Your task to perform on an android device: Search for "usb-c to usb-a" on costco.com, select the first entry, and add it to the cart. Image 0: 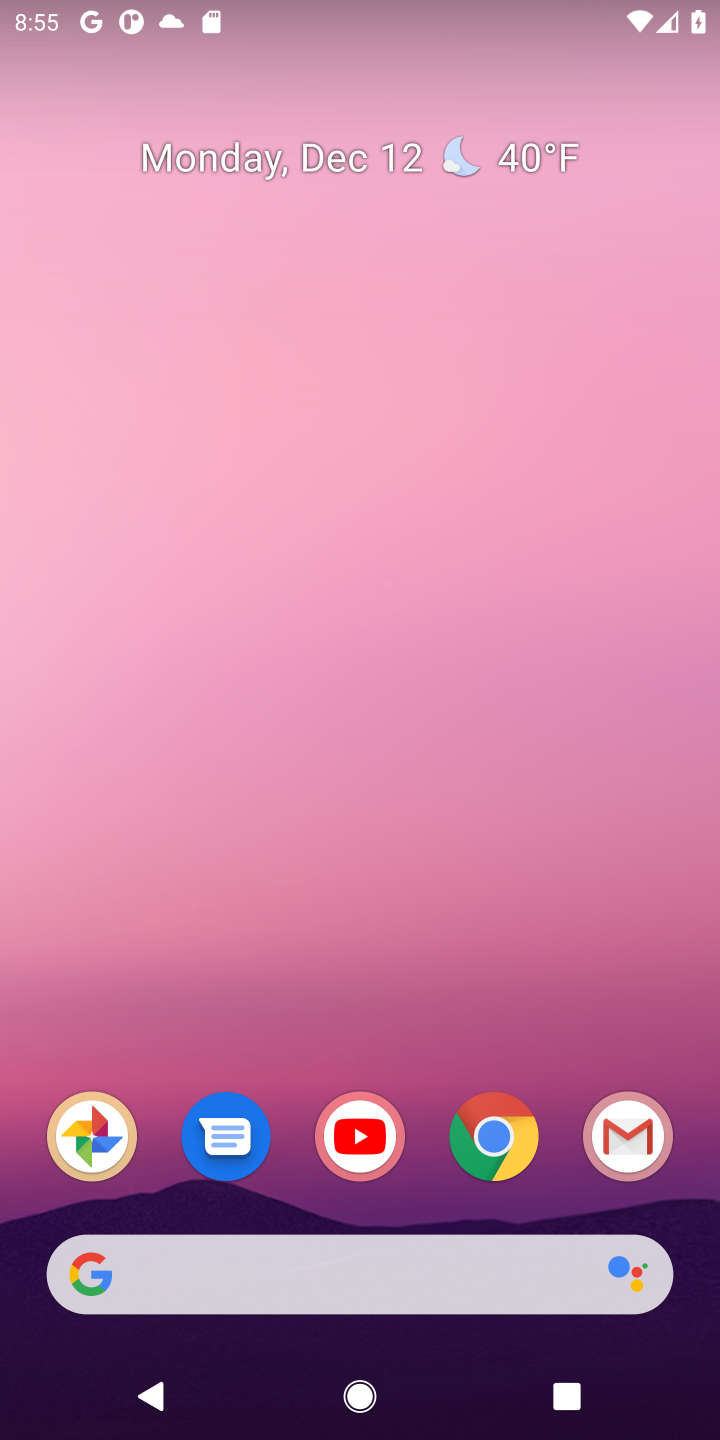
Step 0: click (494, 1147)
Your task to perform on an android device: Search for "usb-c to usb-a" on costco.com, select the first entry, and add it to the cart. Image 1: 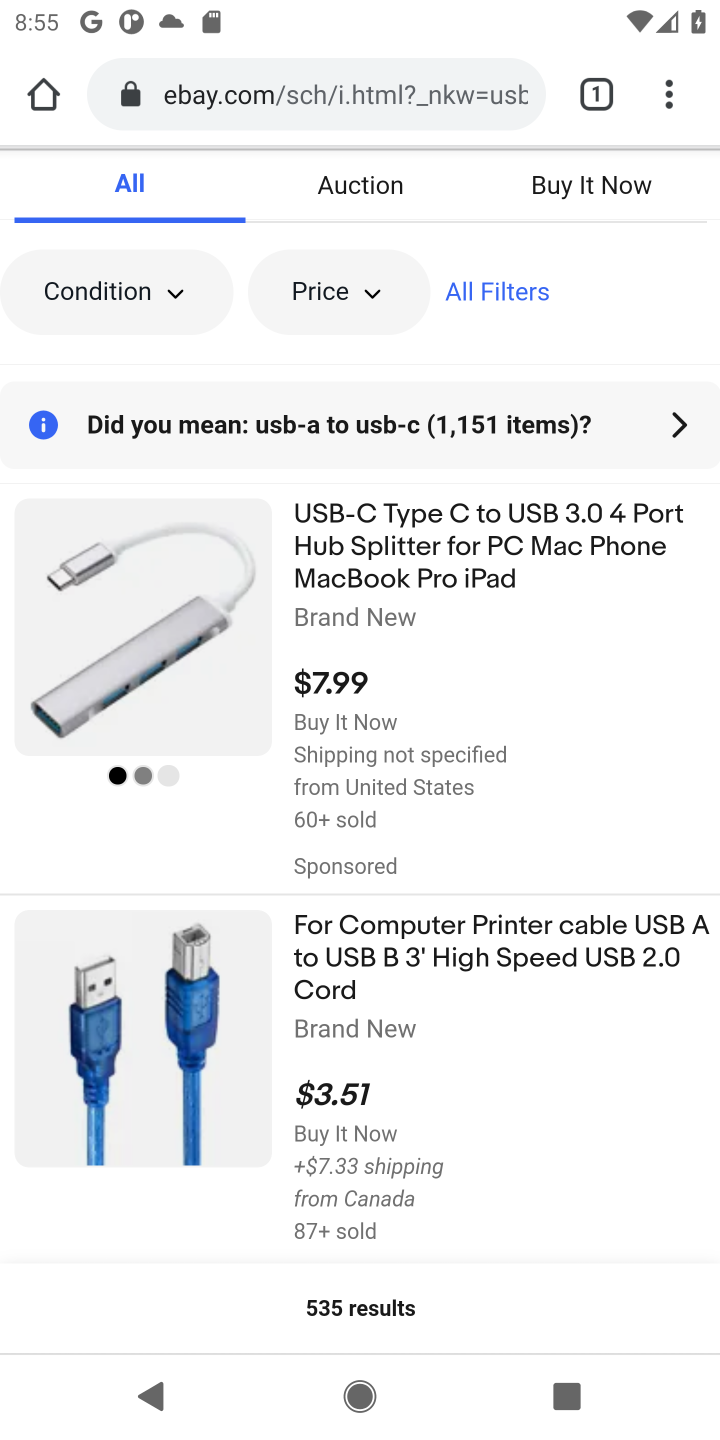
Step 1: click (307, 101)
Your task to perform on an android device: Search for "usb-c to usb-a" on costco.com, select the first entry, and add it to the cart. Image 2: 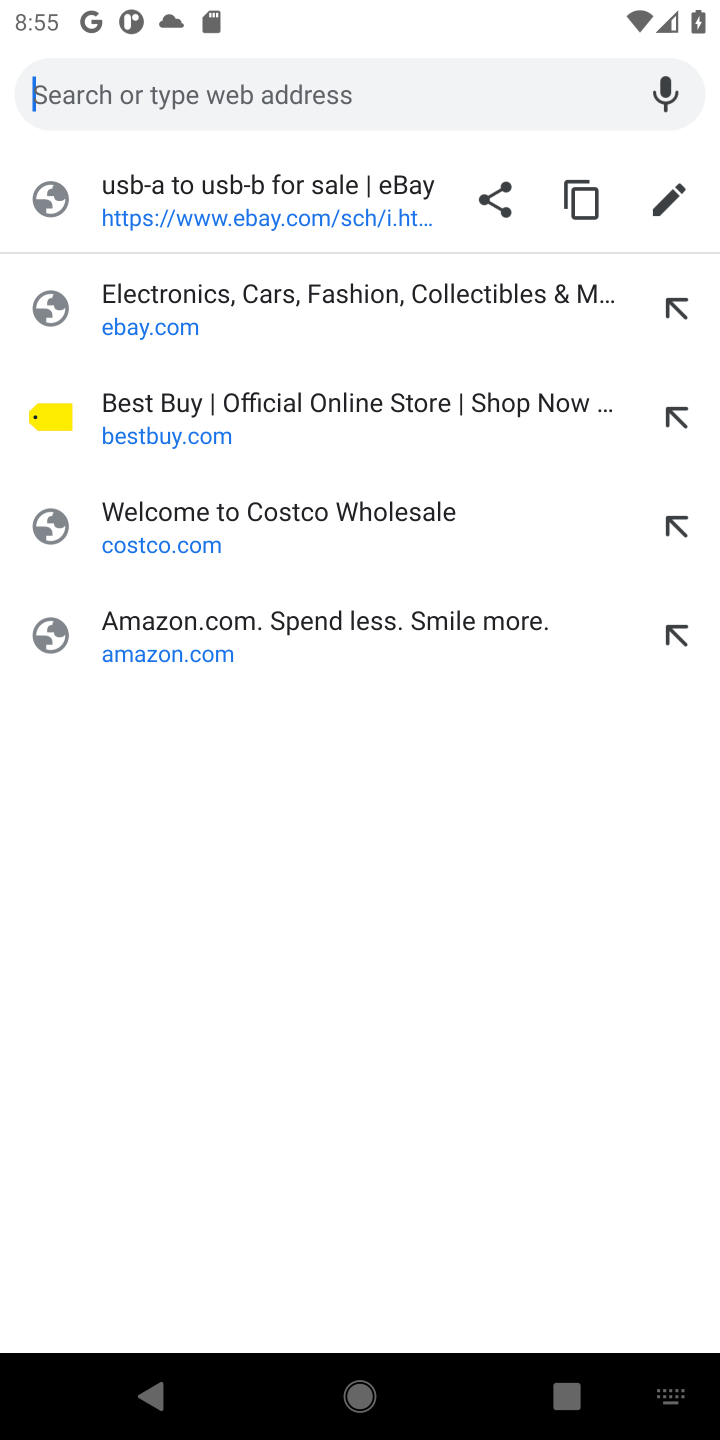
Step 2: click (127, 552)
Your task to perform on an android device: Search for "usb-c to usb-a" on costco.com, select the first entry, and add it to the cart. Image 3: 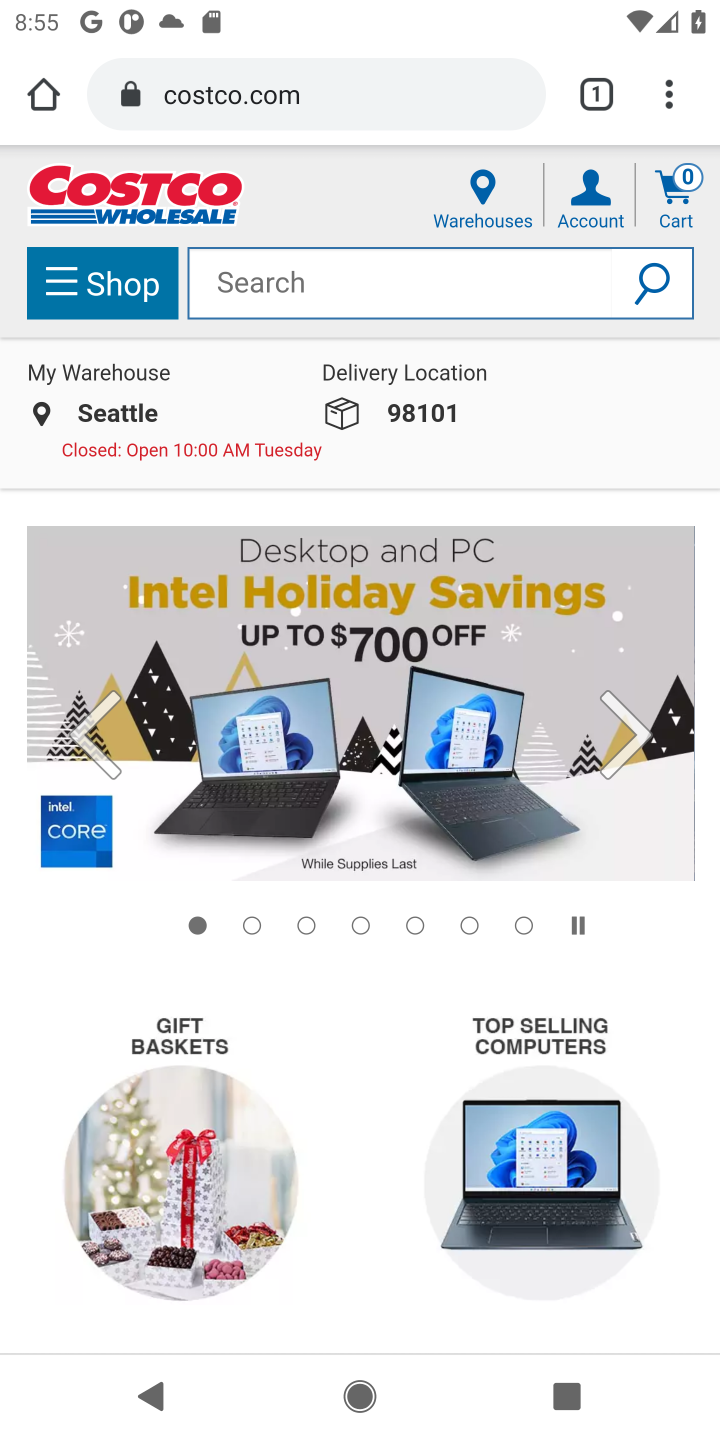
Step 3: click (297, 278)
Your task to perform on an android device: Search for "usb-c to usb-a" on costco.com, select the first entry, and add it to the cart. Image 4: 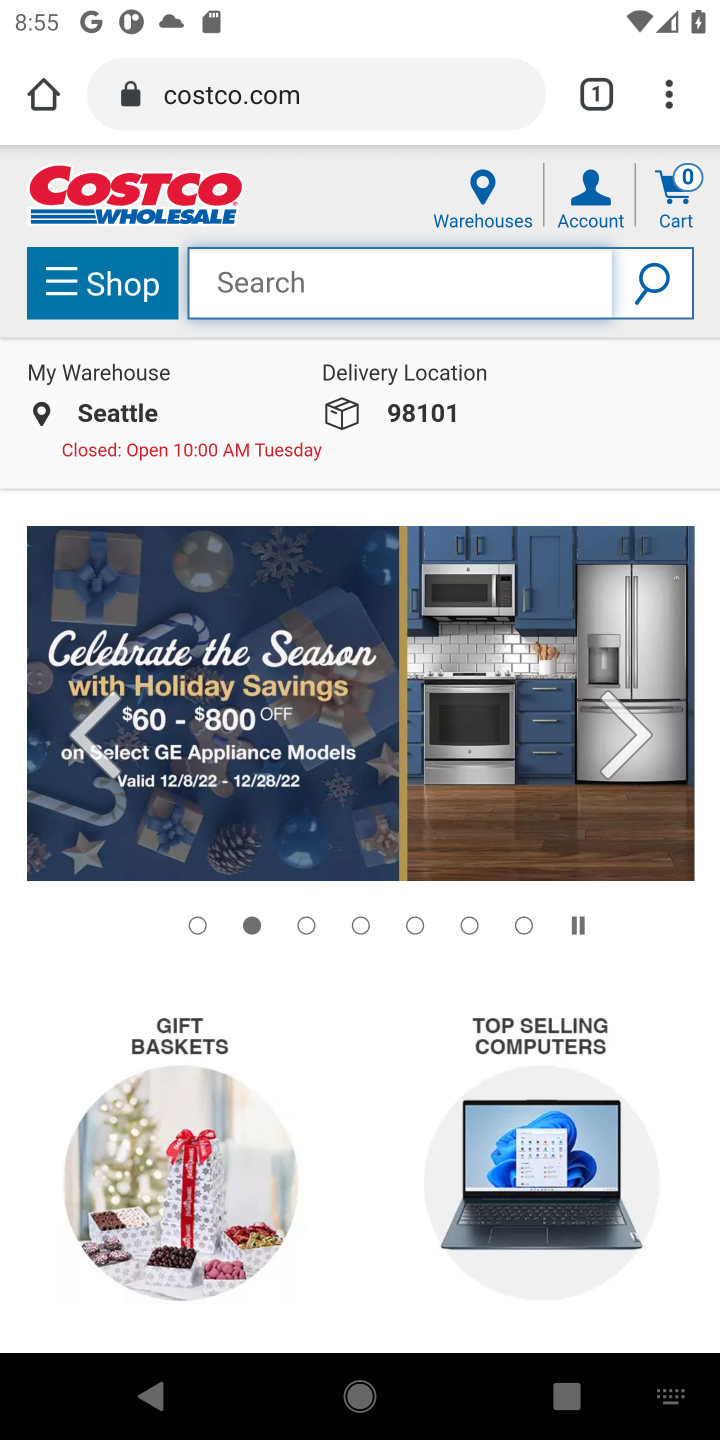
Step 4: type "usb-c to usb-a"
Your task to perform on an android device: Search for "usb-c to usb-a" on costco.com, select the first entry, and add it to the cart. Image 5: 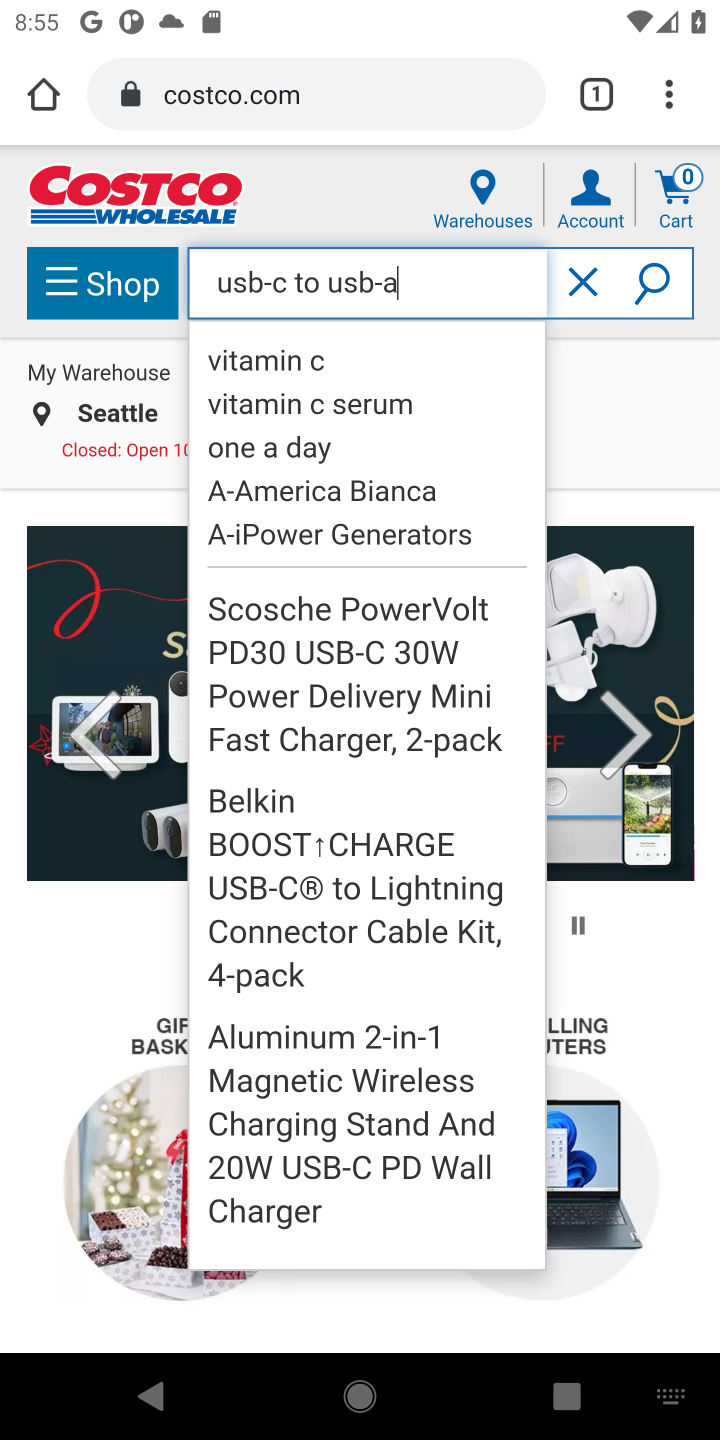
Step 5: click (653, 293)
Your task to perform on an android device: Search for "usb-c to usb-a" on costco.com, select the first entry, and add it to the cart. Image 6: 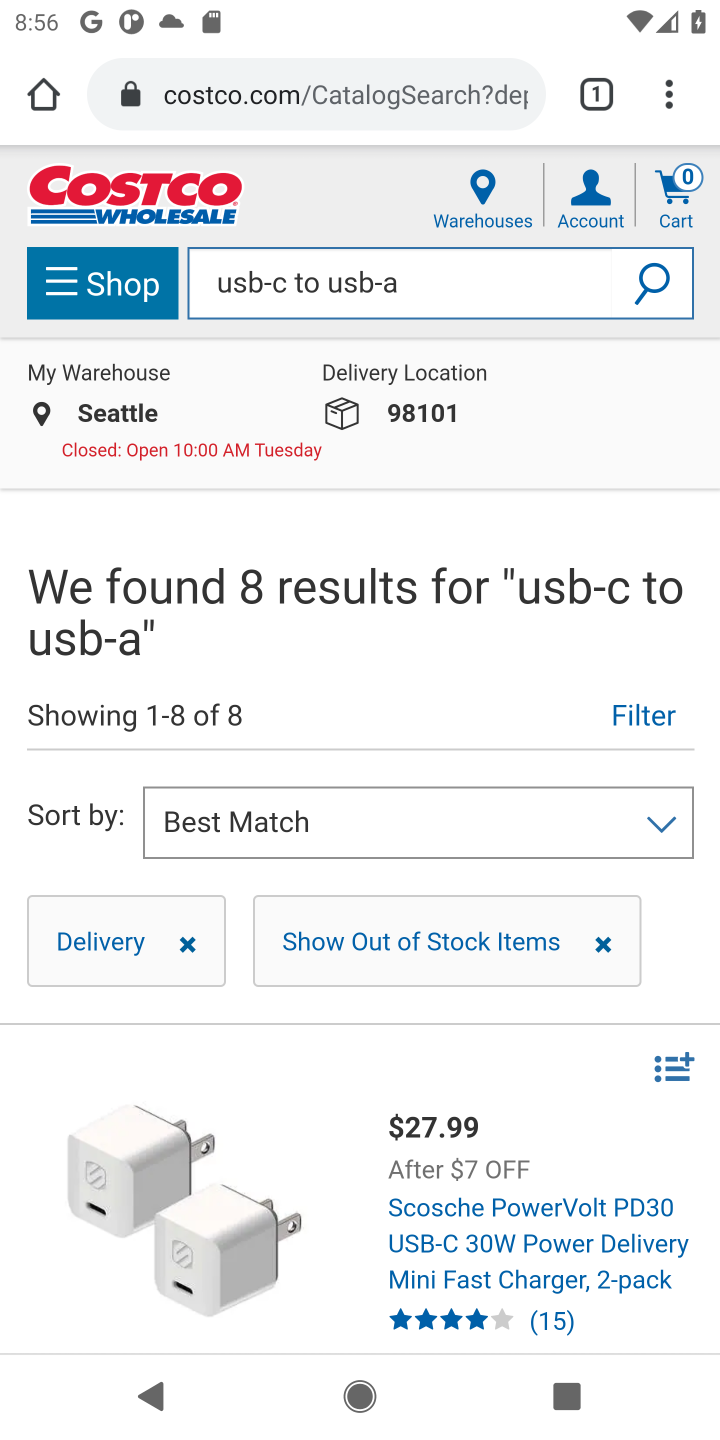
Step 6: drag from (260, 1081) to (347, 630)
Your task to perform on an android device: Search for "usb-c to usb-a" on costco.com, select the first entry, and add it to the cart. Image 7: 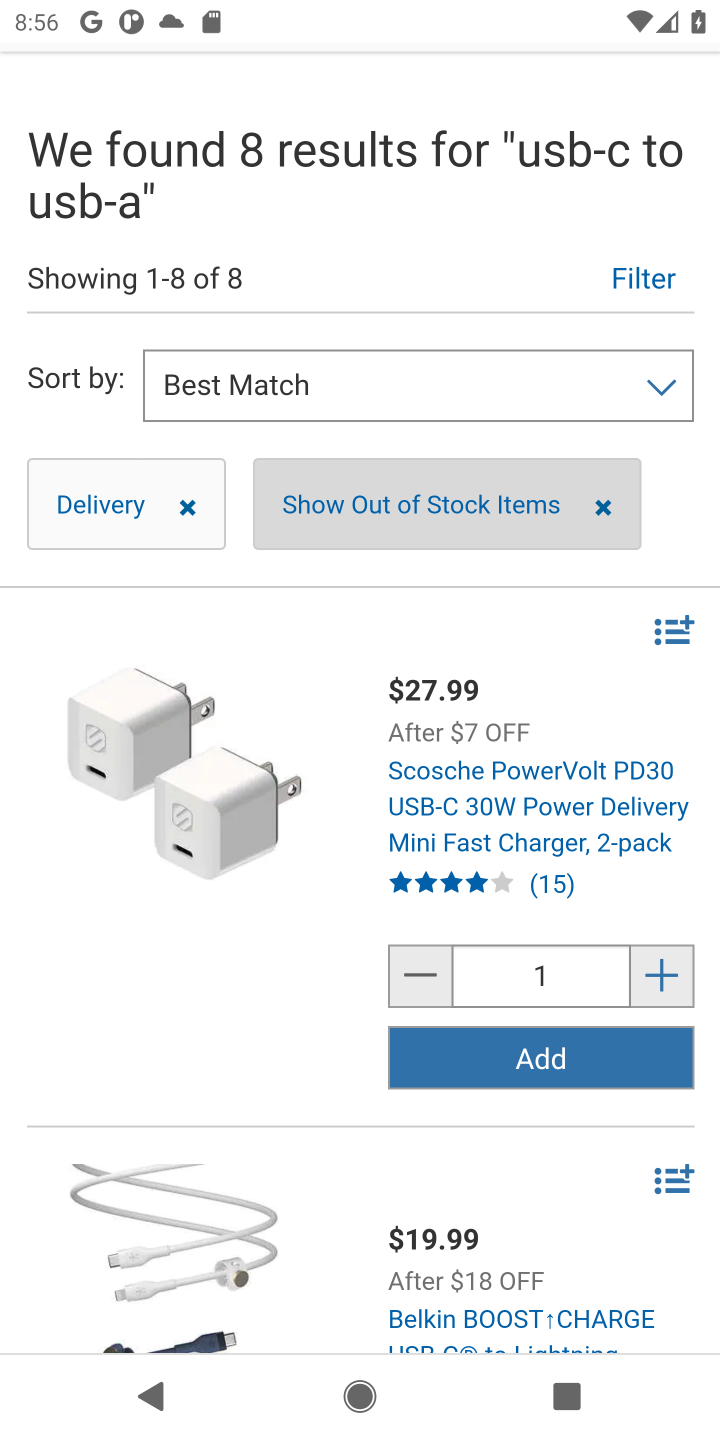
Step 7: click (478, 804)
Your task to perform on an android device: Search for "usb-c to usb-a" on costco.com, select the first entry, and add it to the cart. Image 8: 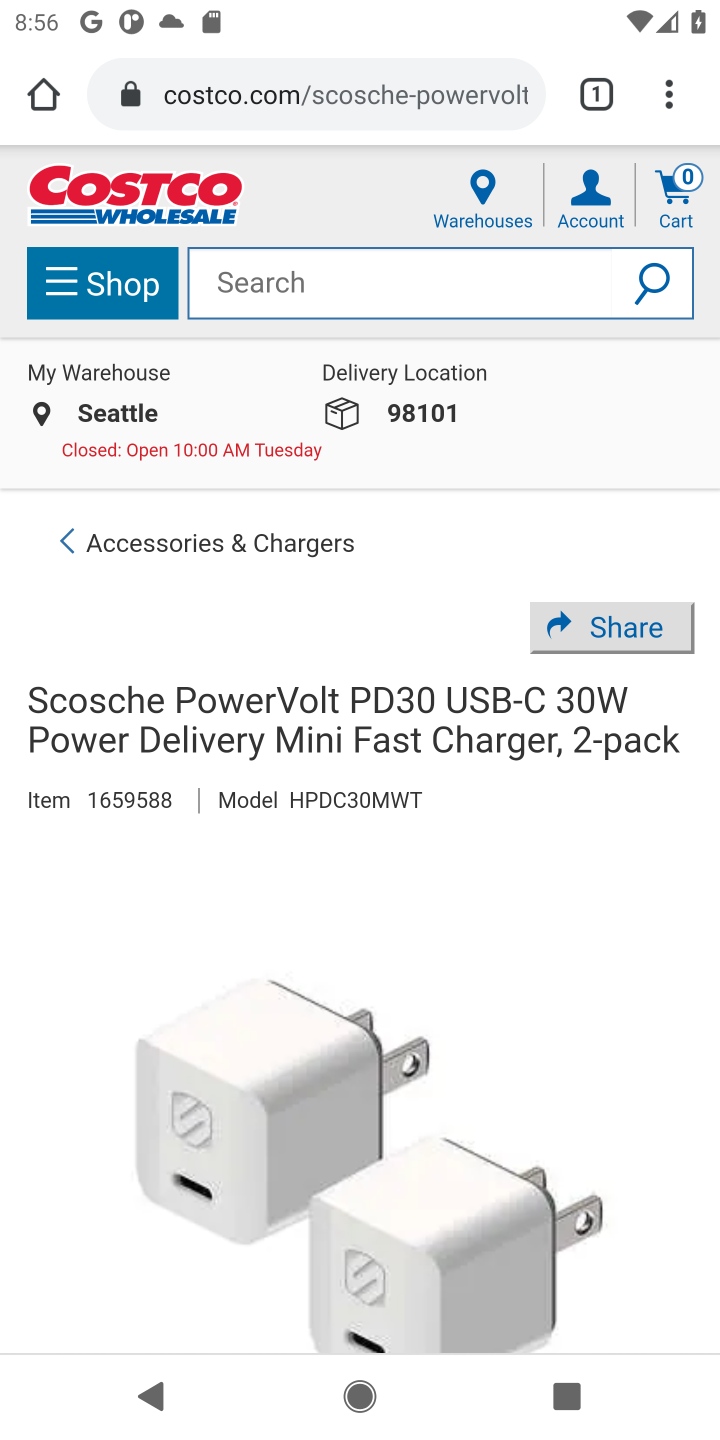
Step 8: task complete